Your task to perform on an android device: toggle airplane mode Image 0: 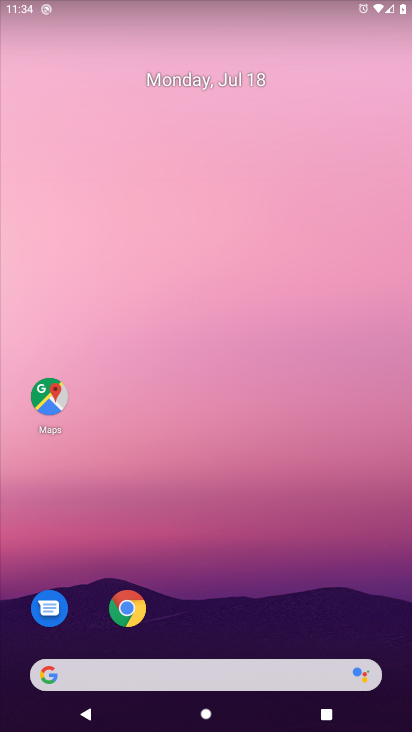
Step 0: click (46, 677)
Your task to perform on an android device: toggle airplane mode Image 1: 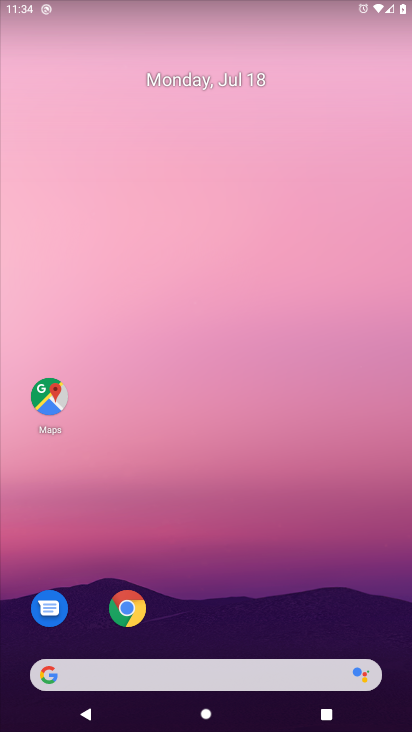
Step 1: drag from (30, 714) to (268, 89)
Your task to perform on an android device: toggle airplane mode Image 2: 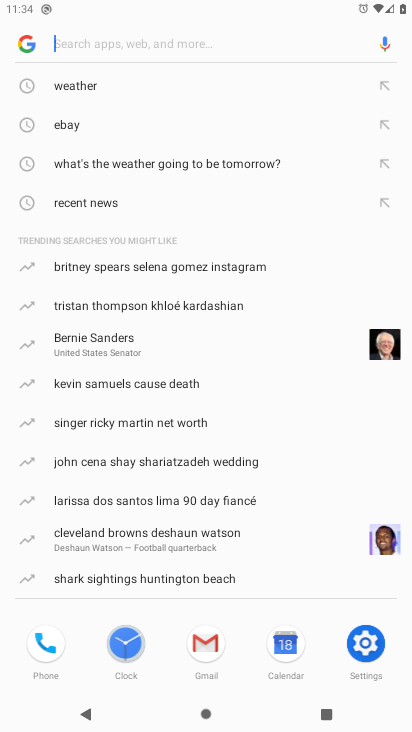
Step 2: press home button
Your task to perform on an android device: toggle airplane mode Image 3: 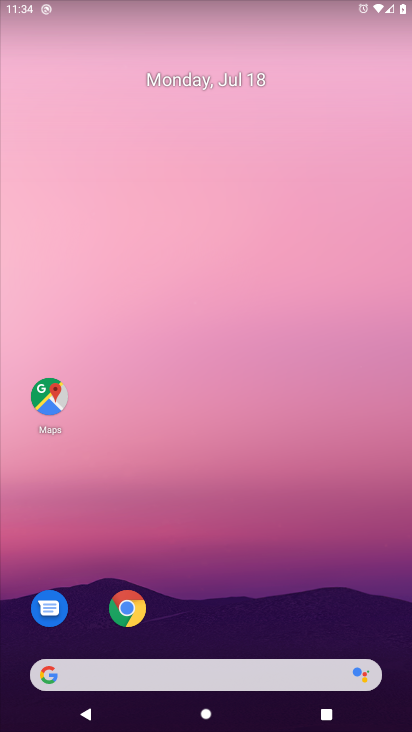
Step 3: drag from (32, 700) to (194, 159)
Your task to perform on an android device: toggle airplane mode Image 4: 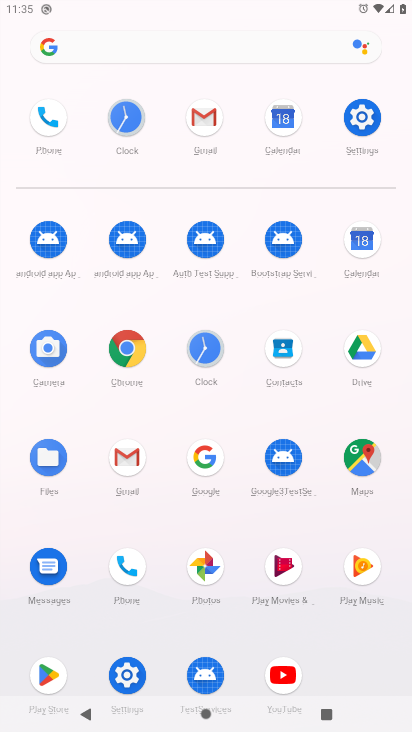
Step 4: click (359, 130)
Your task to perform on an android device: toggle airplane mode Image 5: 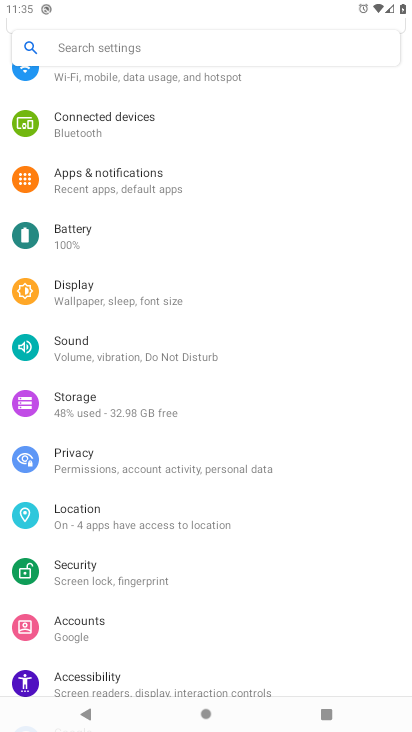
Step 5: drag from (236, 125) to (262, 686)
Your task to perform on an android device: toggle airplane mode Image 6: 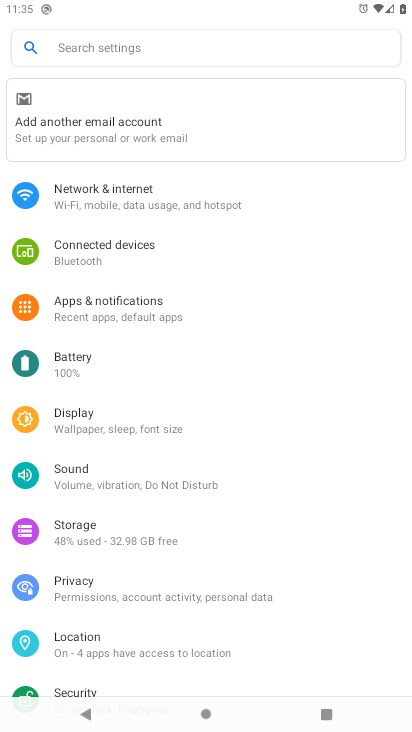
Step 6: click (72, 195)
Your task to perform on an android device: toggle airplane mode Image 7: 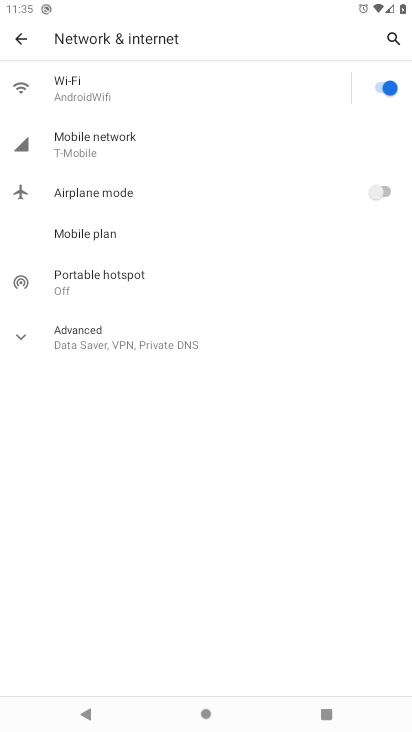
Step 7: task complete